Your task to perform on an android device: uninstall "Lyft - Rideshare, Bikes, Scooters & Transit" Image 0: 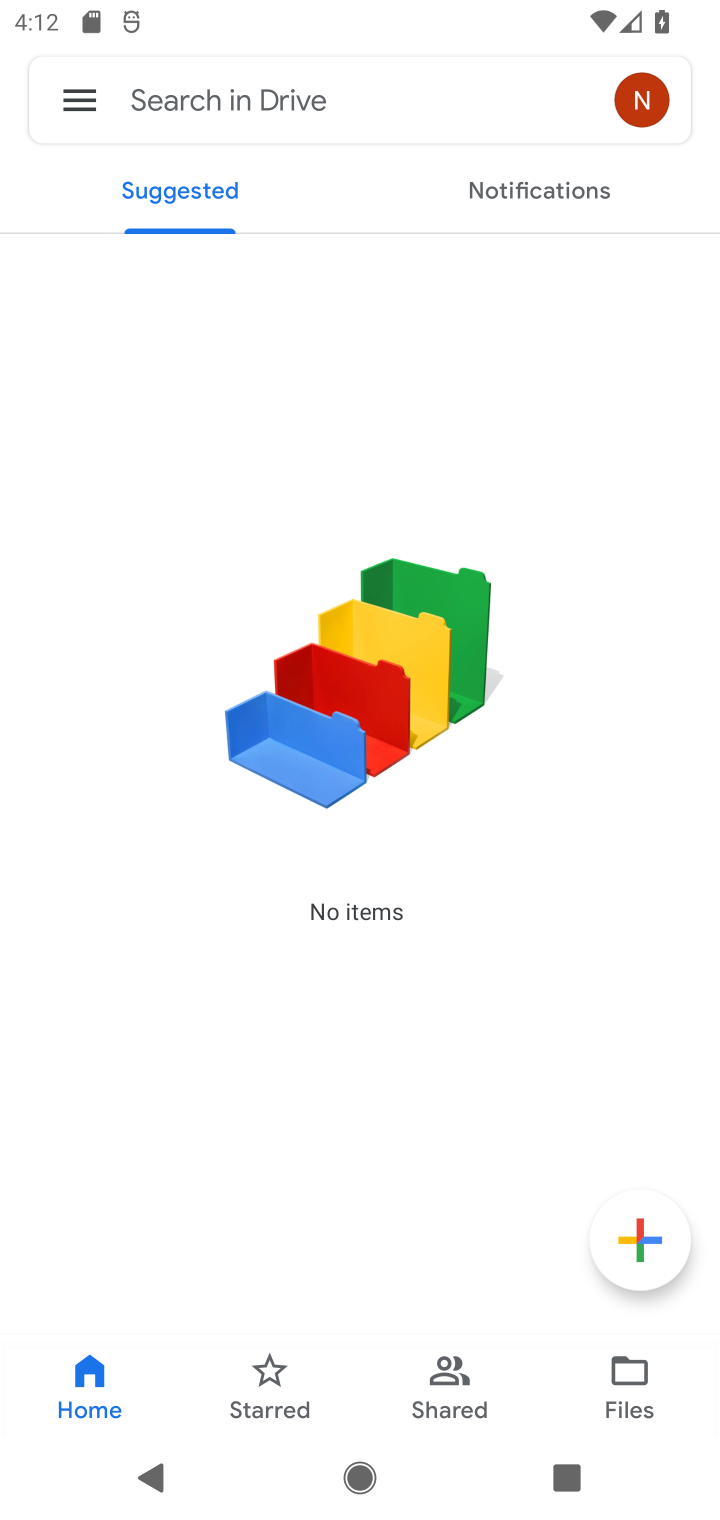
Step 0: press home button
Your task to perform on an android device: uninstall "Lyft - Rideshare, Bikes, Scooters & Transit" Image 1: 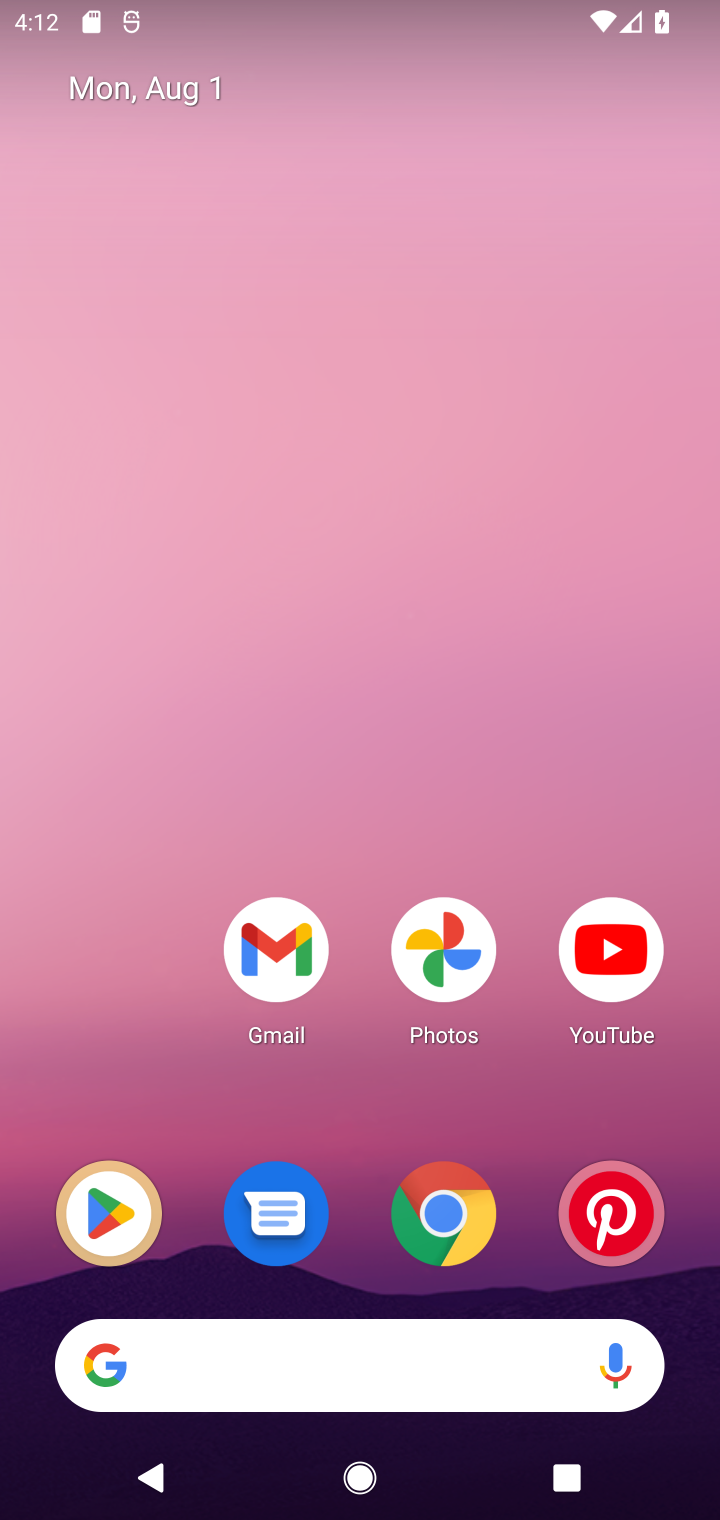
Step 1: drag from (516, 830) to (497, 30)
Your task to perform on an android device: uninstall "Lyft - Rideshare, Bikes, Scooters & Transit" Image 2: 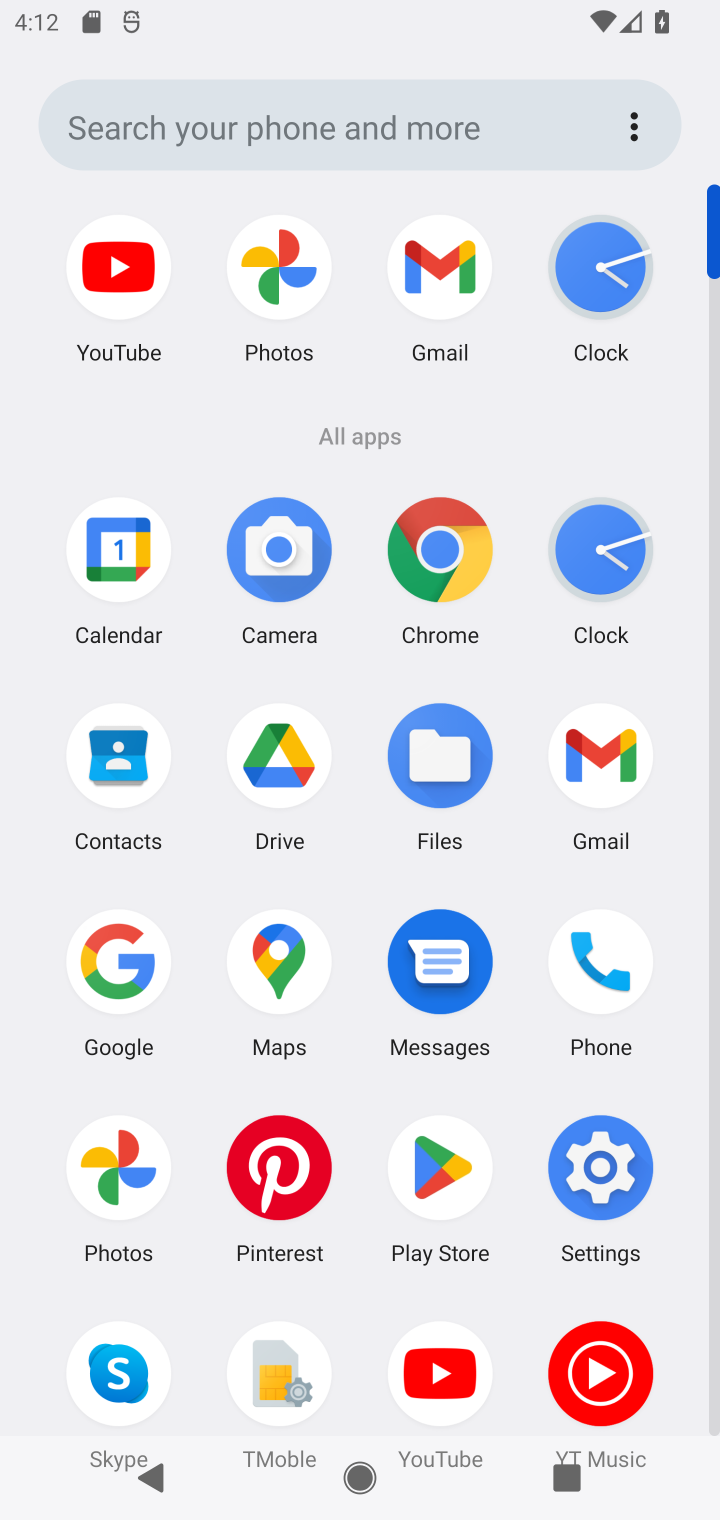
Step 2: click (466, 1181)
Your task to perform on an android device: uninstall "Lyft - Rideshare, Bikes, Scooters & Transit" Image 3: 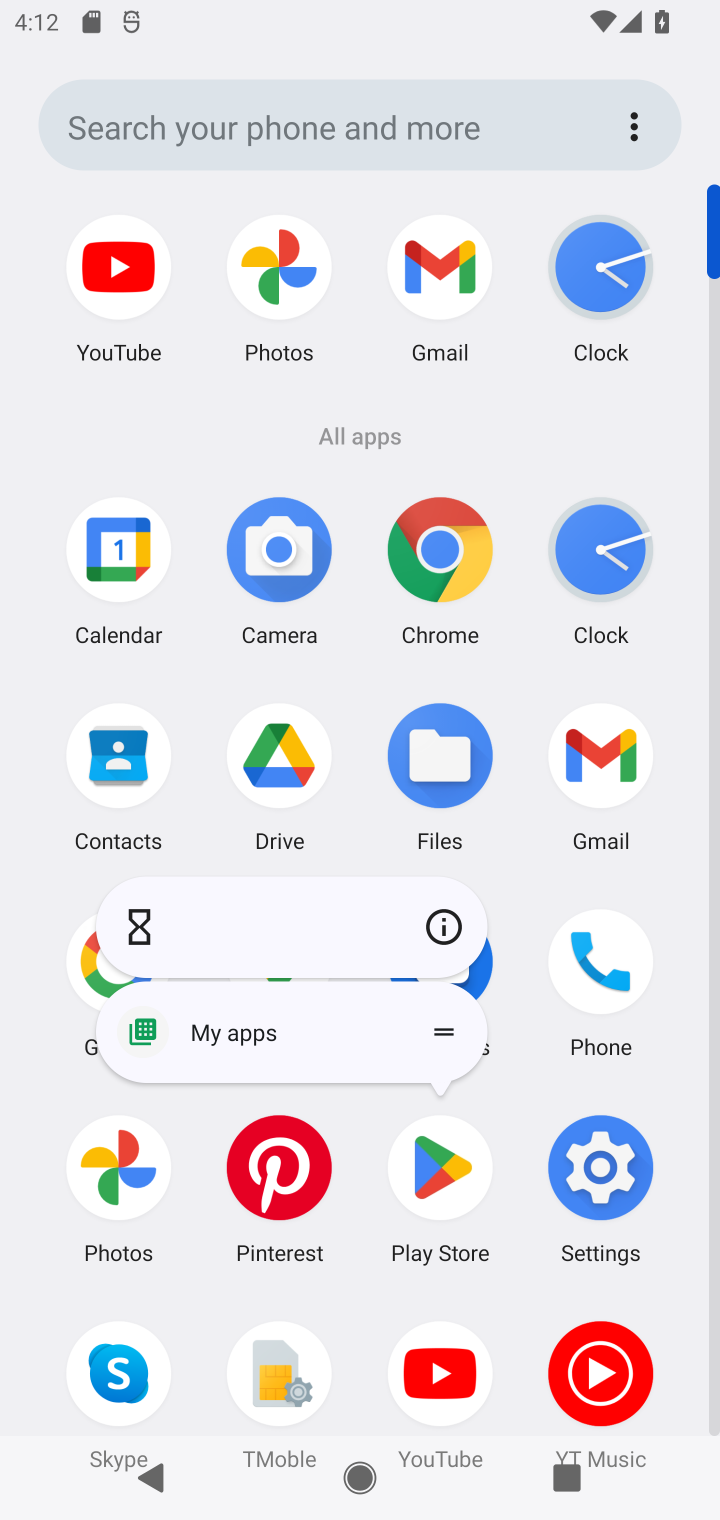
Step 3: click (452, 1163)
Your task to perform on an android device: uninstall "Lyft - Rideshare, Bikes, Scooters & Transit" Image 4: 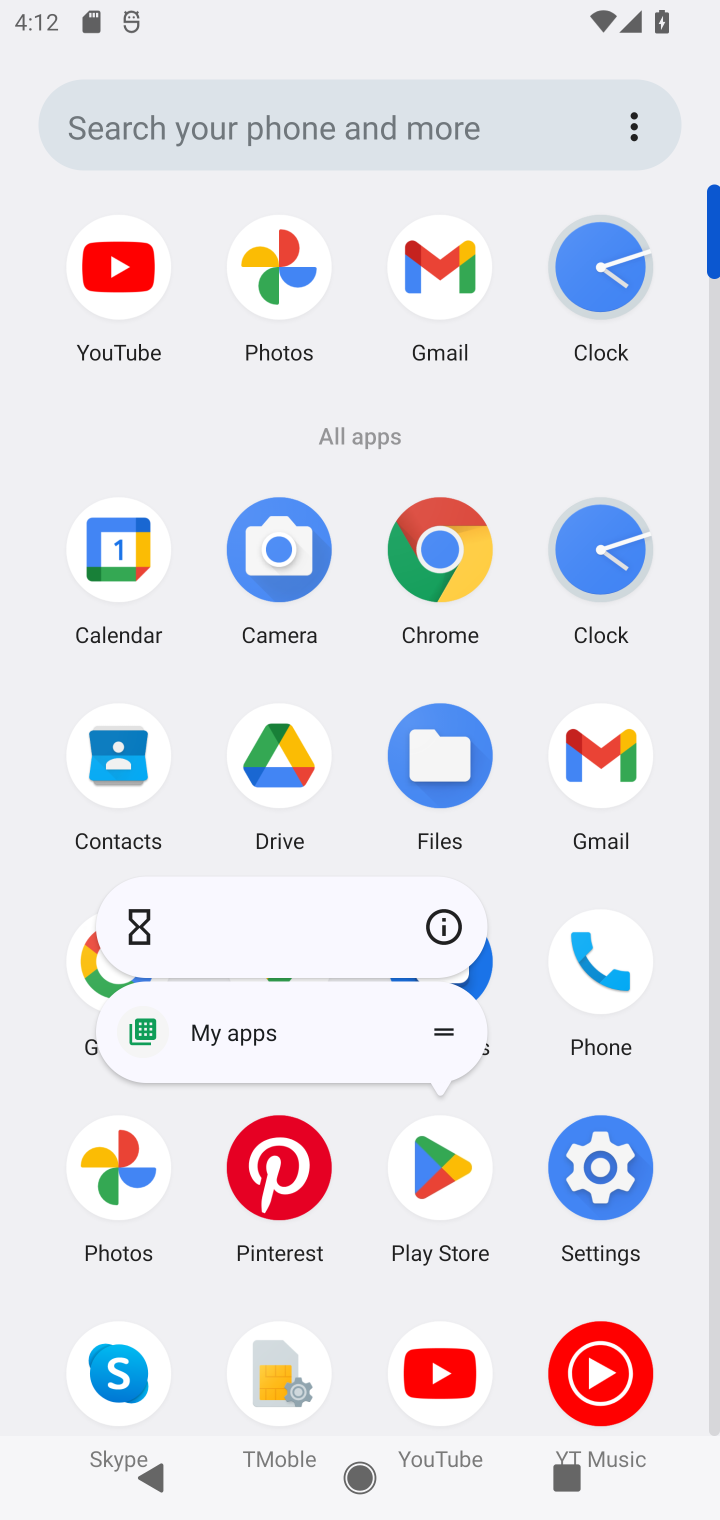
Step 4: click (429, 1177)
Your task to perform on an android device: uninstall "Lyft - Rideshare, Bikes, Scooters & Transit" Image 5: 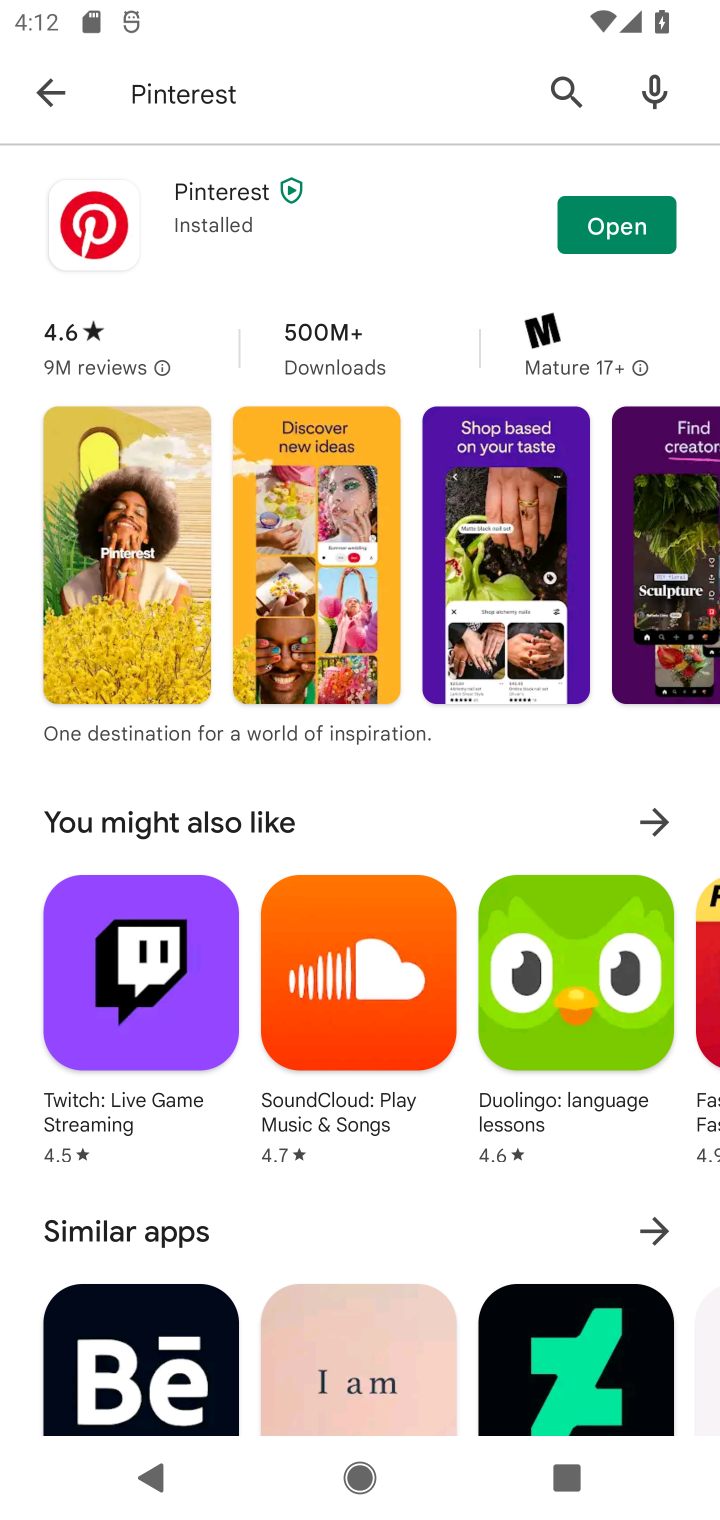
Step 5: click (373, 86)
Your task to perform on an android device: uninstall "Lyft - Rideshare, Bikes, Scooters & Transit" Image 6: 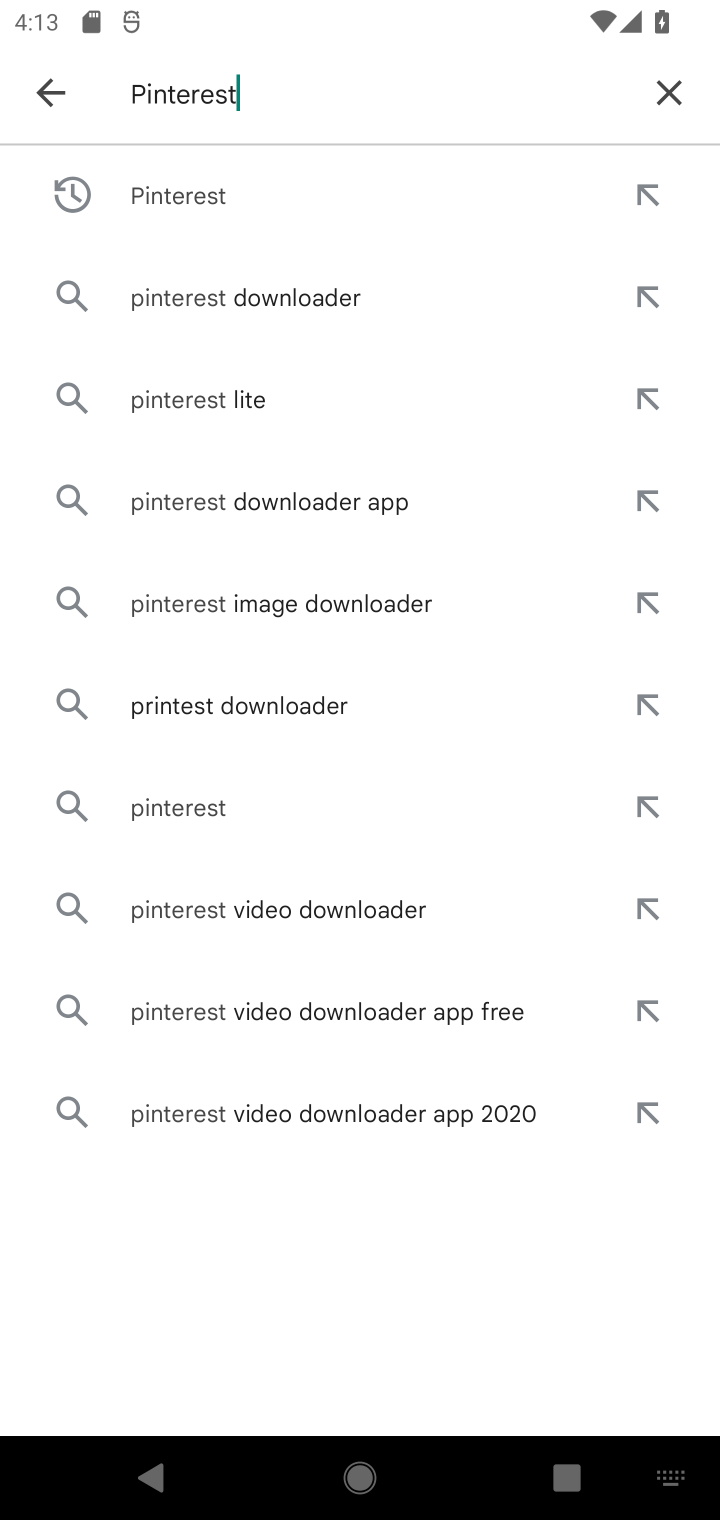
Step 6: click (664, 79)
Your task to perform on an android device: uninstall "Lyft - Rideshare, Bikes, Scooters & Transit" Image 7: 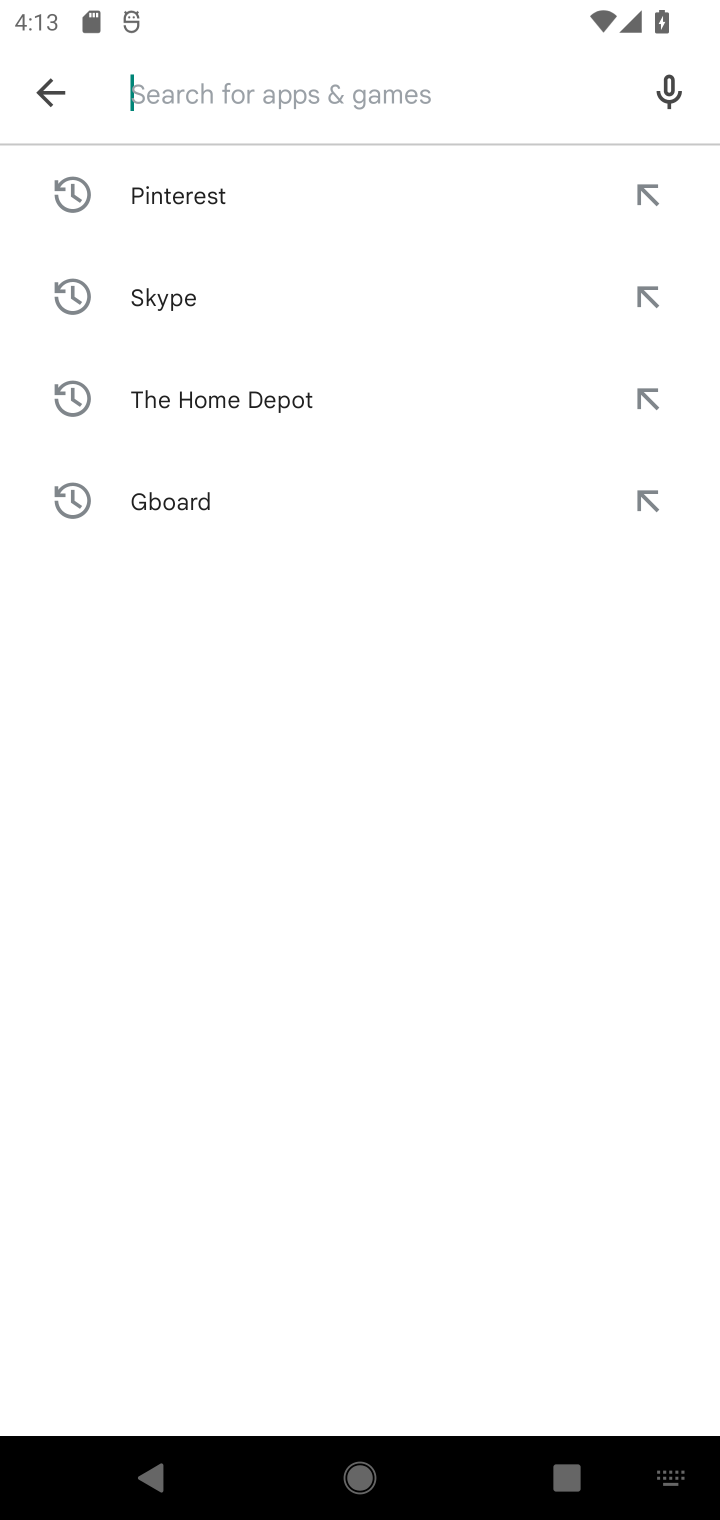
Step 7: type "Lyft - Rideshare, Bikes, Scooters"
Your task to perform on an android device: uninstall "Lyft - Rideshare, Bikes, Scooters & Transit" Image 8: 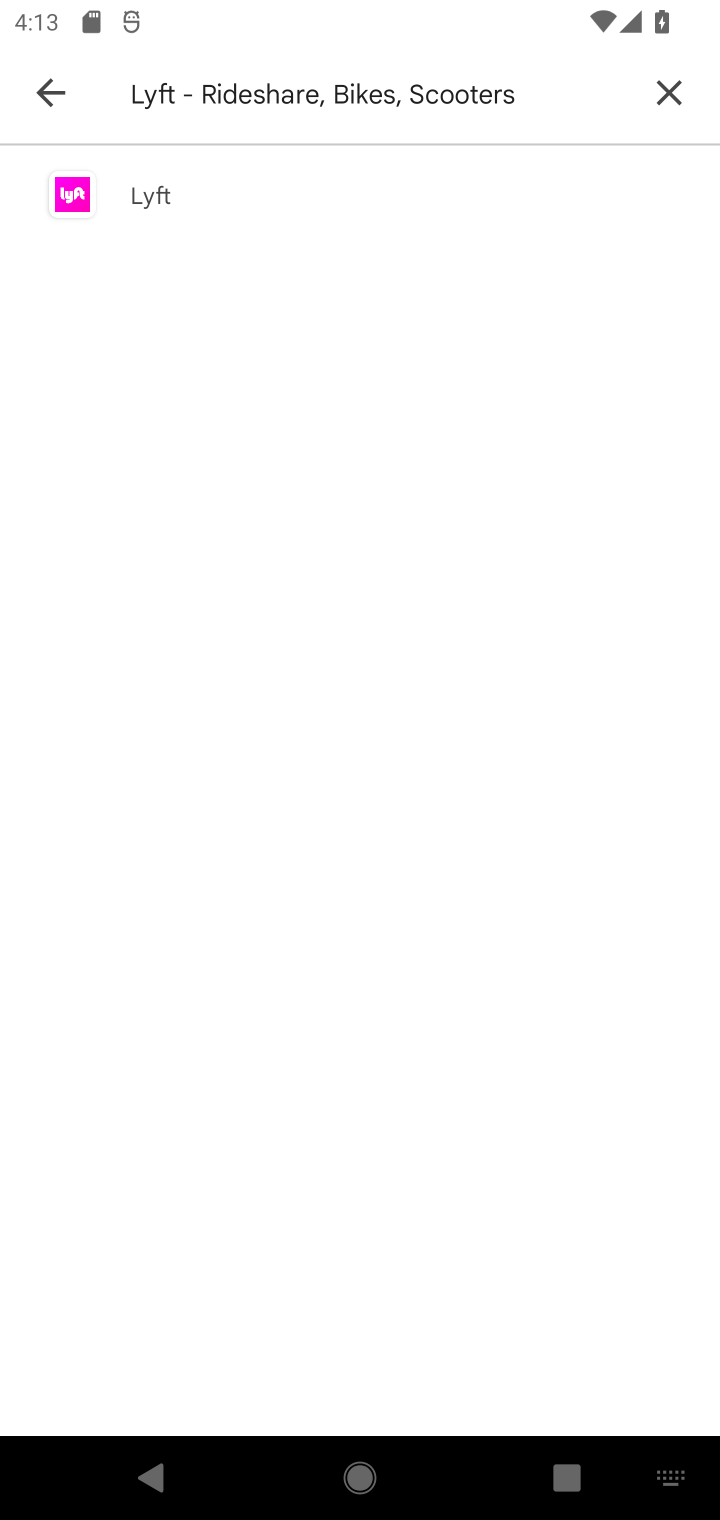
Step 8: type " & "
Your task to perform on an android device: uninstall "Lyft - Rideshare, Bikes, Scooters & Transit" Image 9: 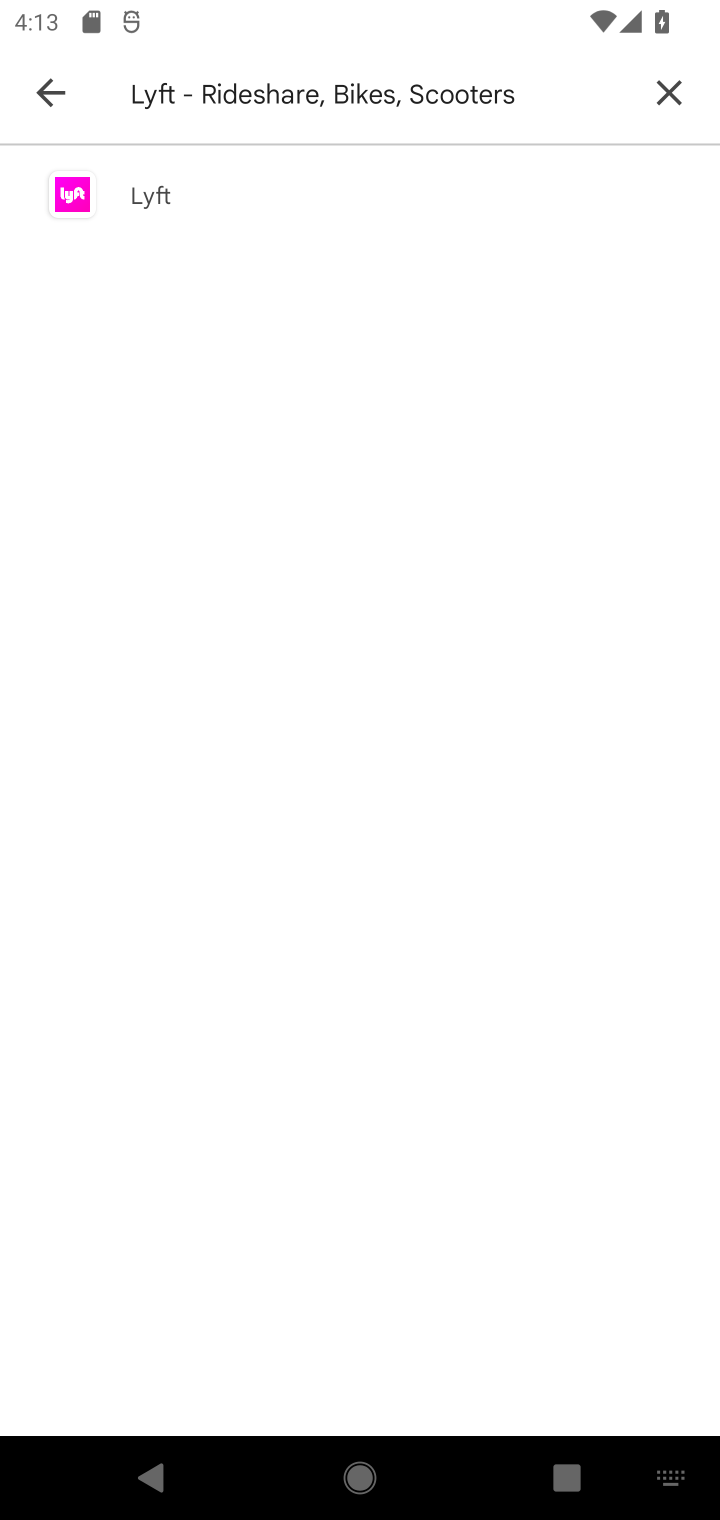
Step 9: click (84, 205)
Your task to perform on an android device: uninstall "Lyft - Rideshare, Bikes, Scooters & Transit" Image 10: 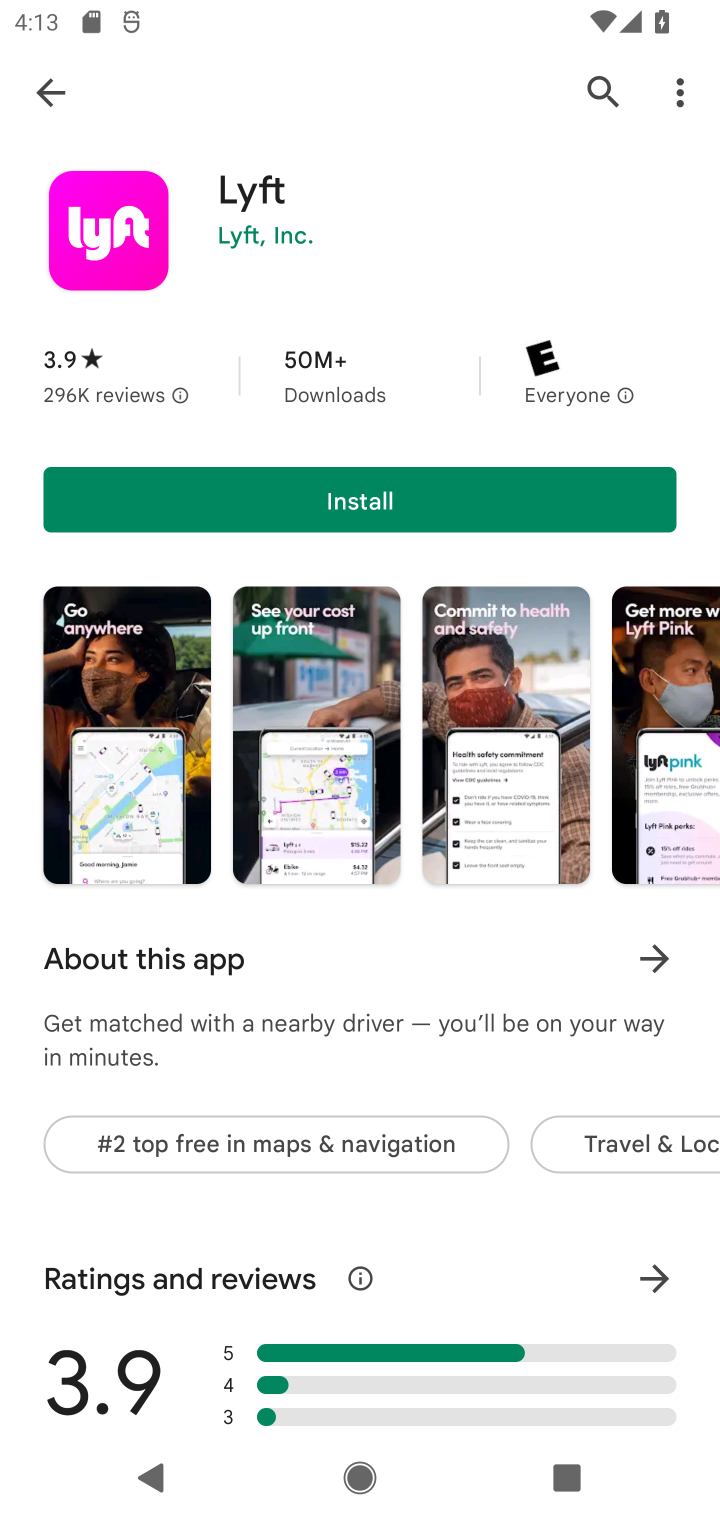
Step 10: task complete